Your task to perform on an android device: Go to battery settings Image 0: 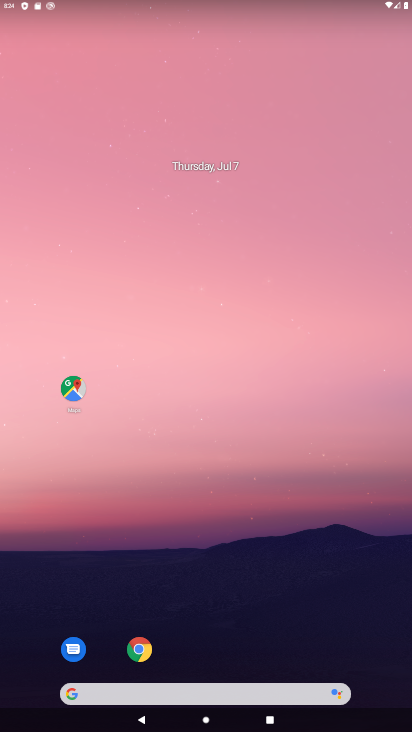
Step 0: drag from (191, 668) to (294, 184)
Your task to perform on an android device: Go to battery settings Image 1: 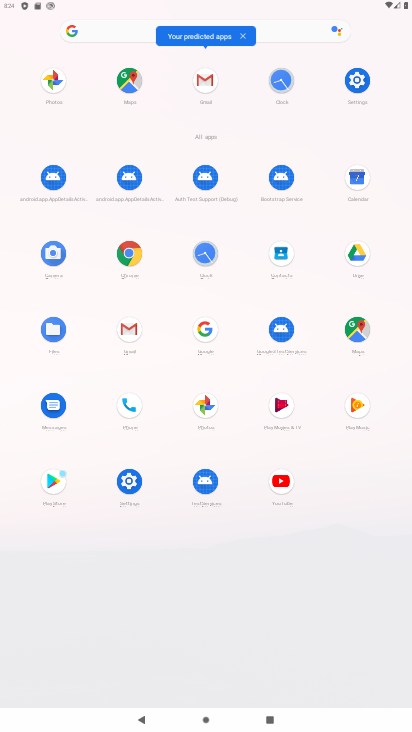
Step 1: click (119, 491)
Your task to perform on an android device: Go to battery settings Image 2: 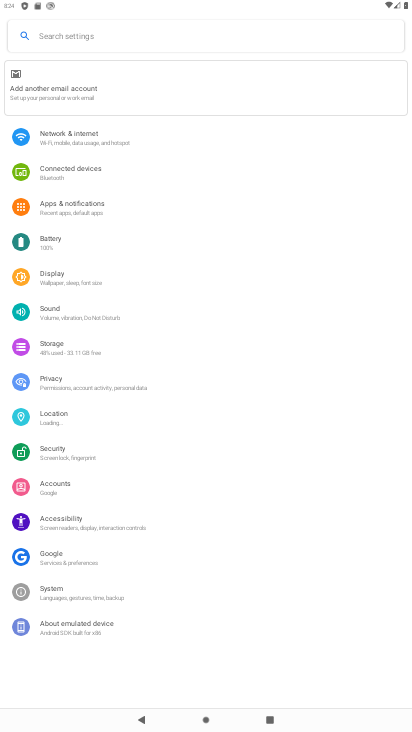
Step 2: click (80, 247)
Your task to perform on an android device: Go to battery settings Image 3: 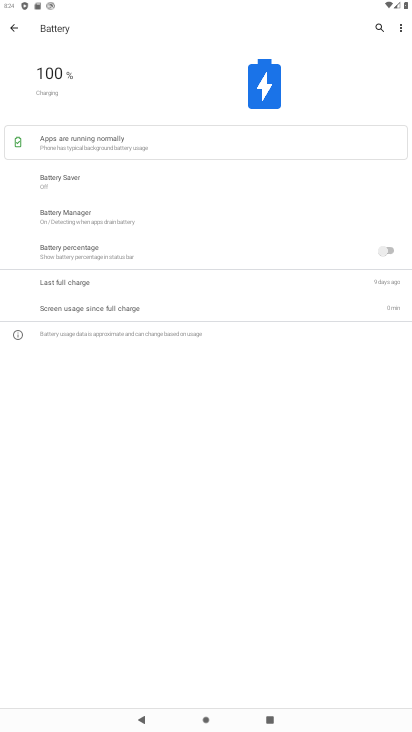
Step 3: task complete